Your task to perform on an android device: install app "Skype" Image 0: 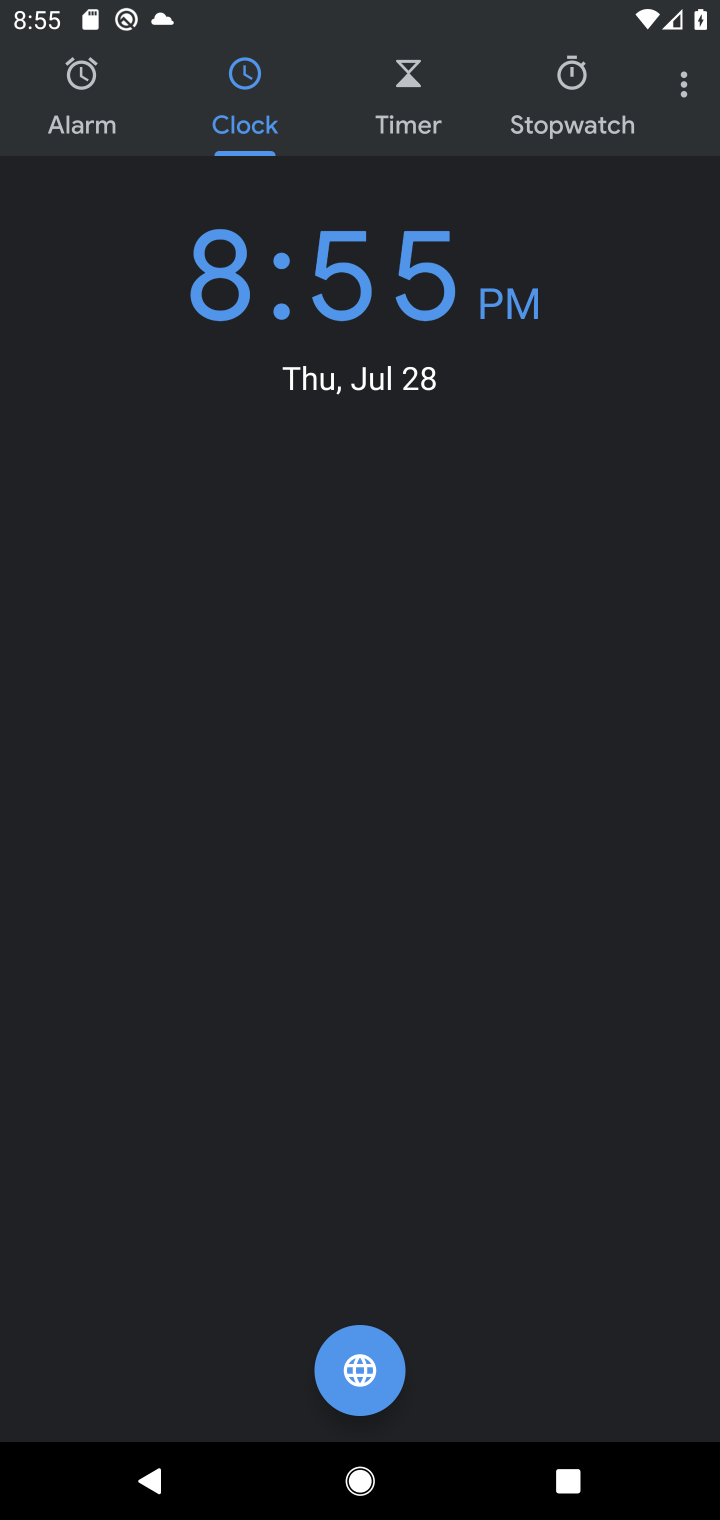
Step 0: press home button
Your task to perform on an android device: install app "Skype" Image 1: 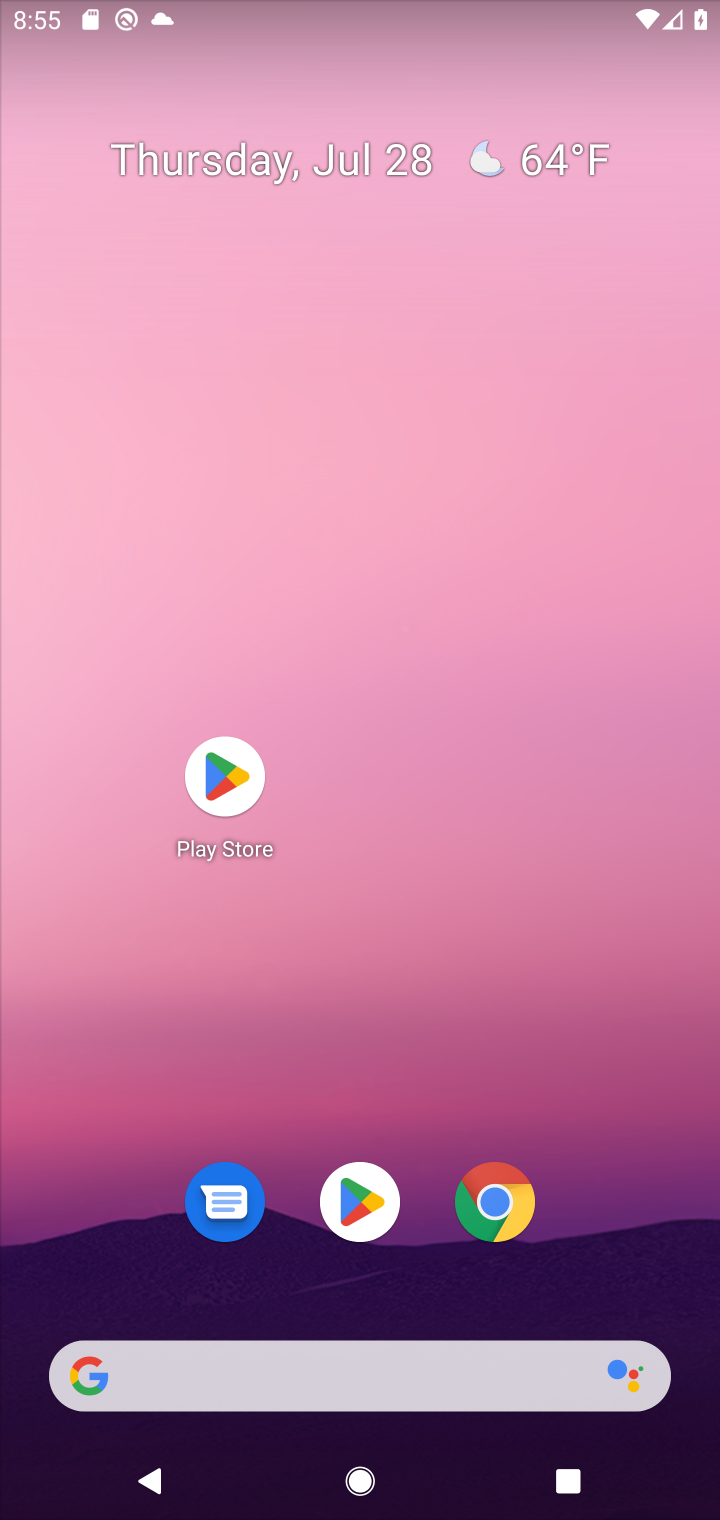
Step 1: click (358, 1189)
Your task to perform on an android device: install app "Skype" Image 2: 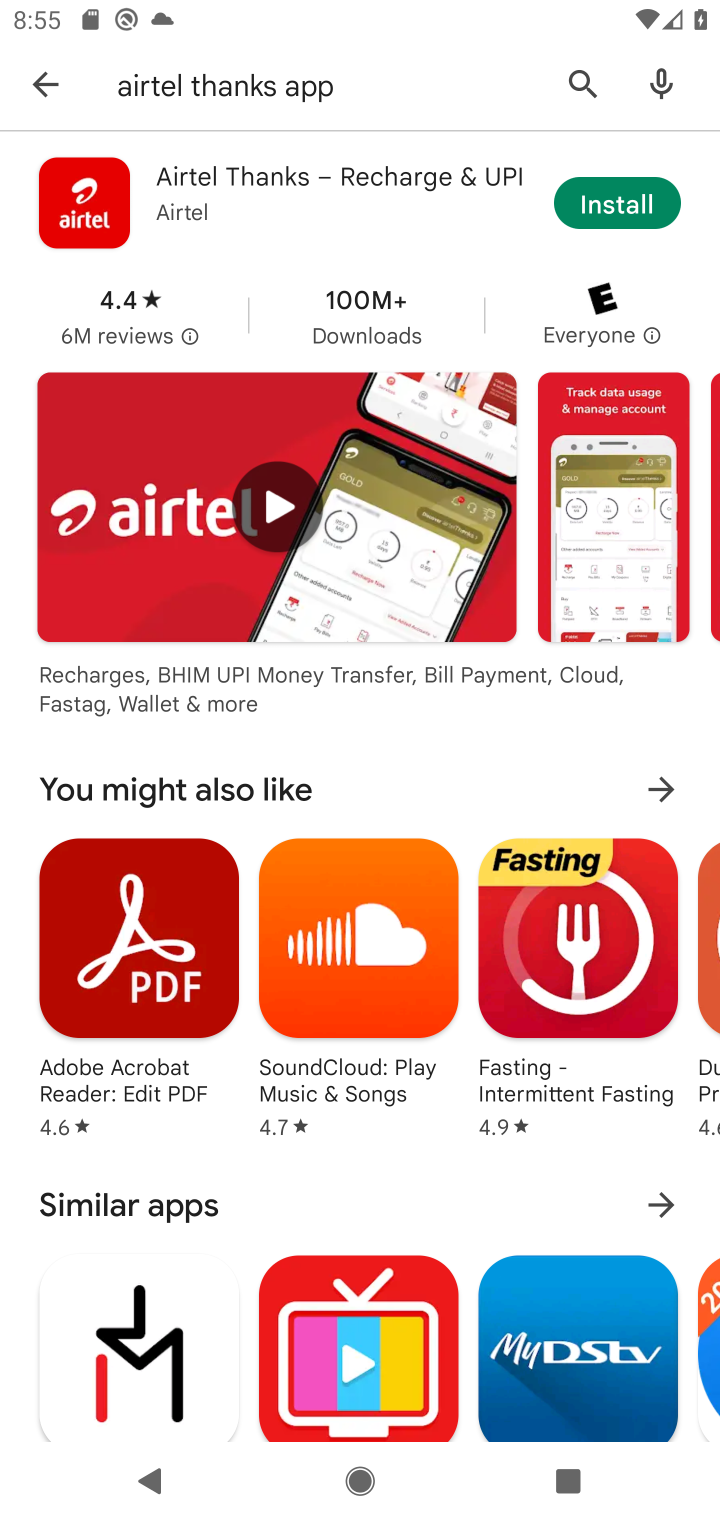
Step 2: click (624, 71)
Your task to perform on an android device: install app "Skype" Image 3: 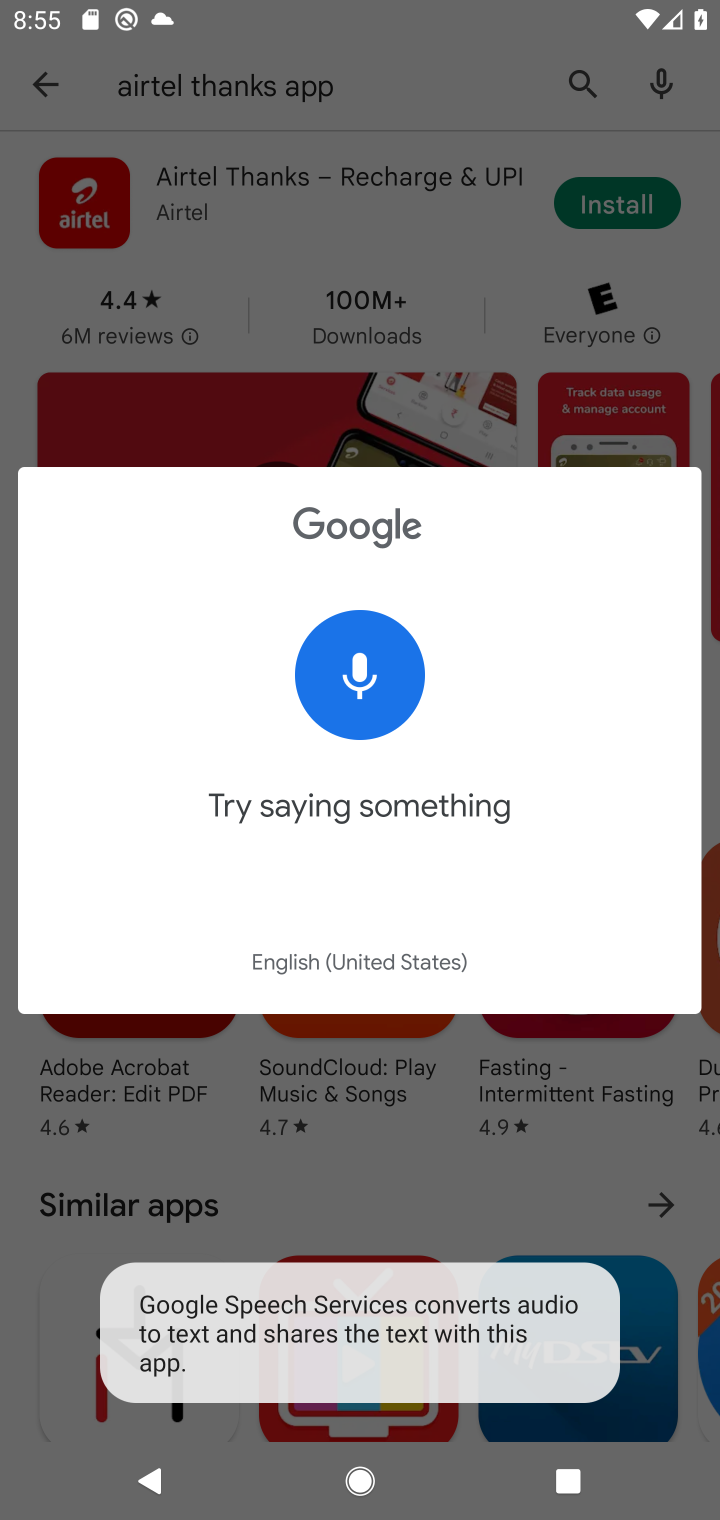
Step 3: click (561, 84)
Your task to perform on an android device: install app "Skype" Image 4: 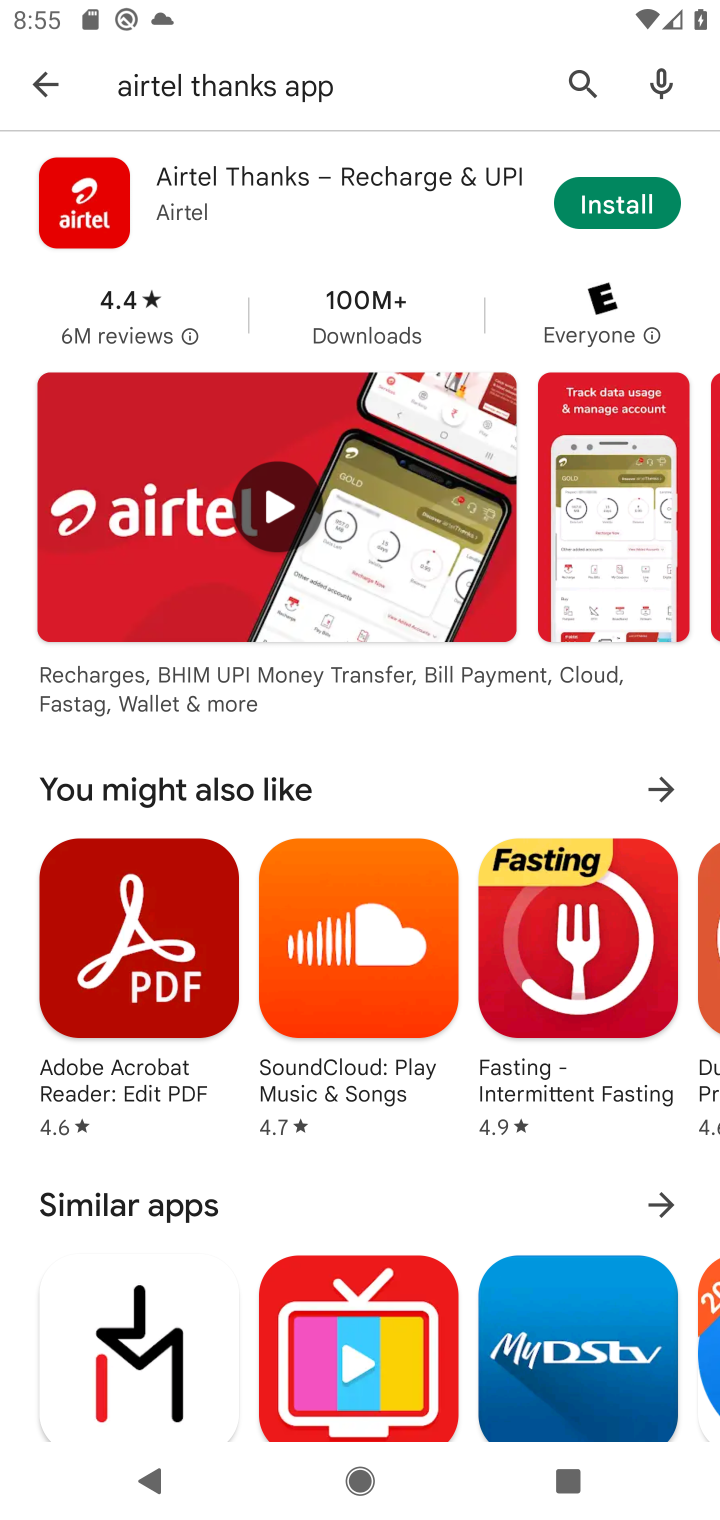
Step 4: click (578, 90)
Your task to perform on an android device: install app "Skype" Image 5: 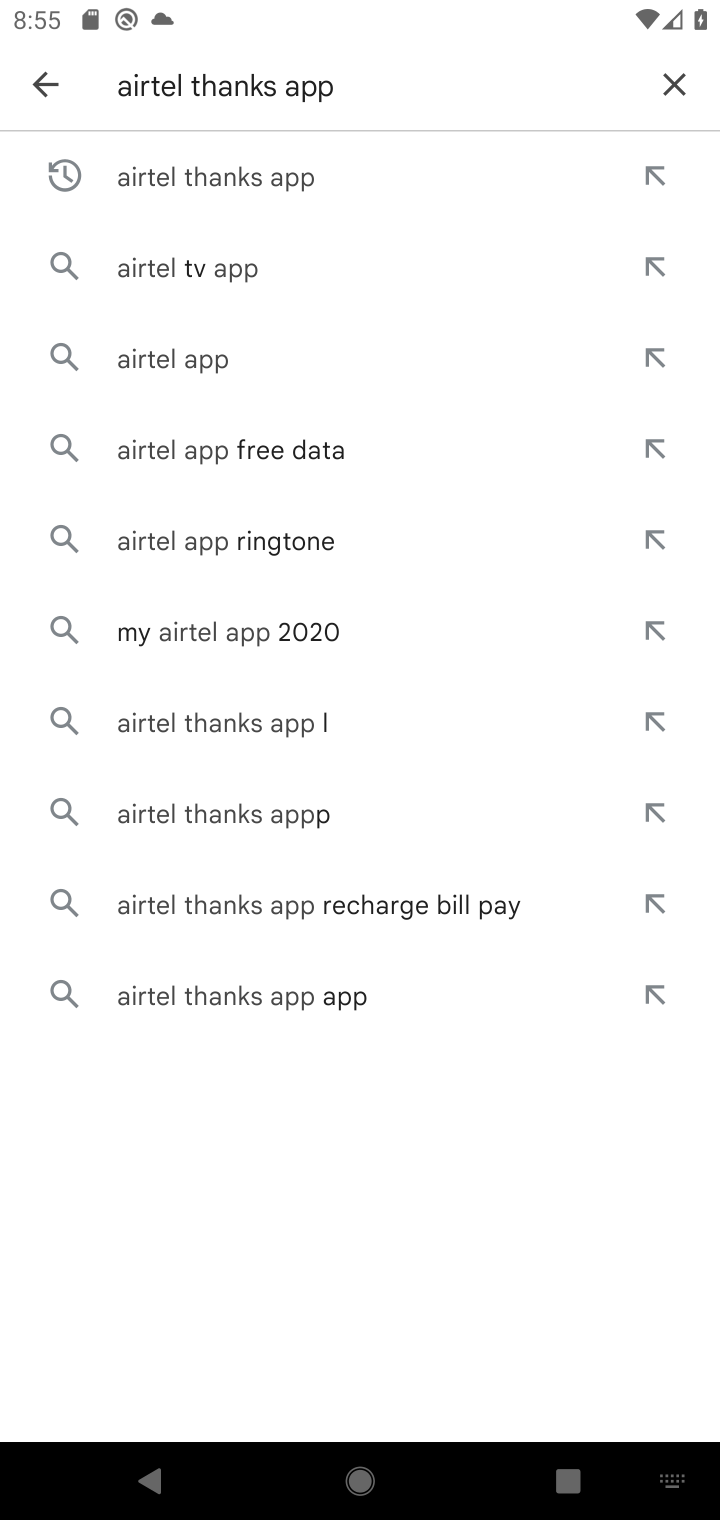
Step 5: click (683, 67)
Your task to perform on an android device: install app "Skype" Image 6: 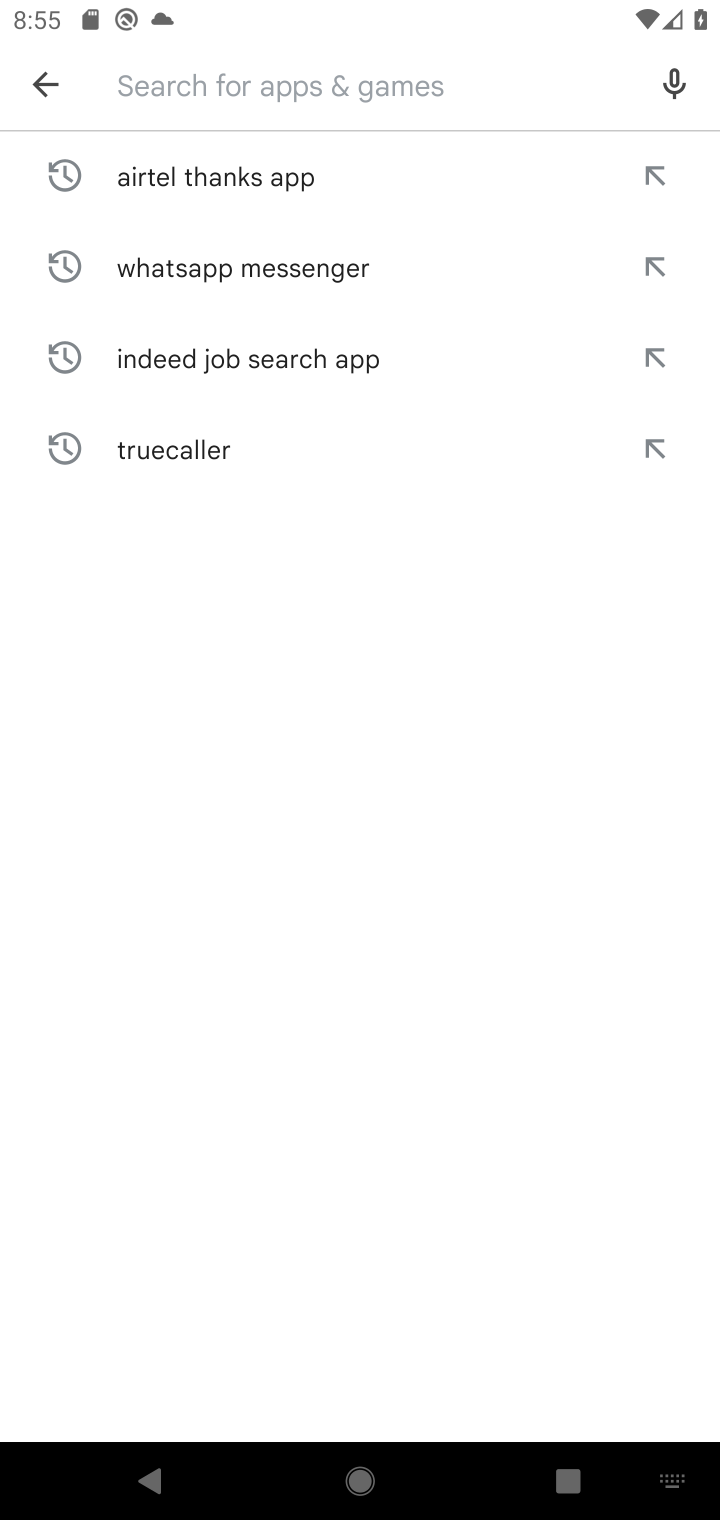
Step 6: click (359, 88)
Your task to perform on an android device: install app "Skype" Image 7: 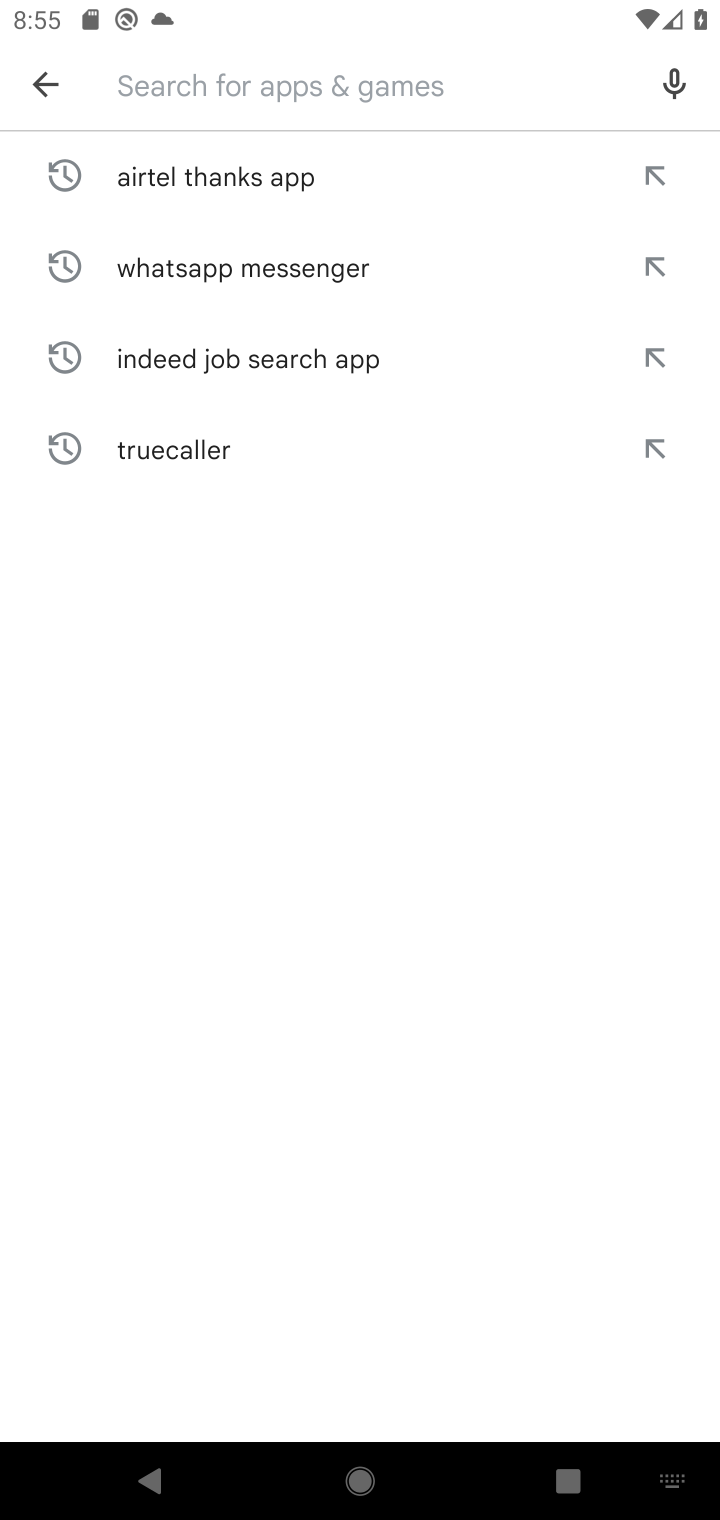
Step 7: type "skype"
Your task to perform on an android device: install app "Skype" Image 8: 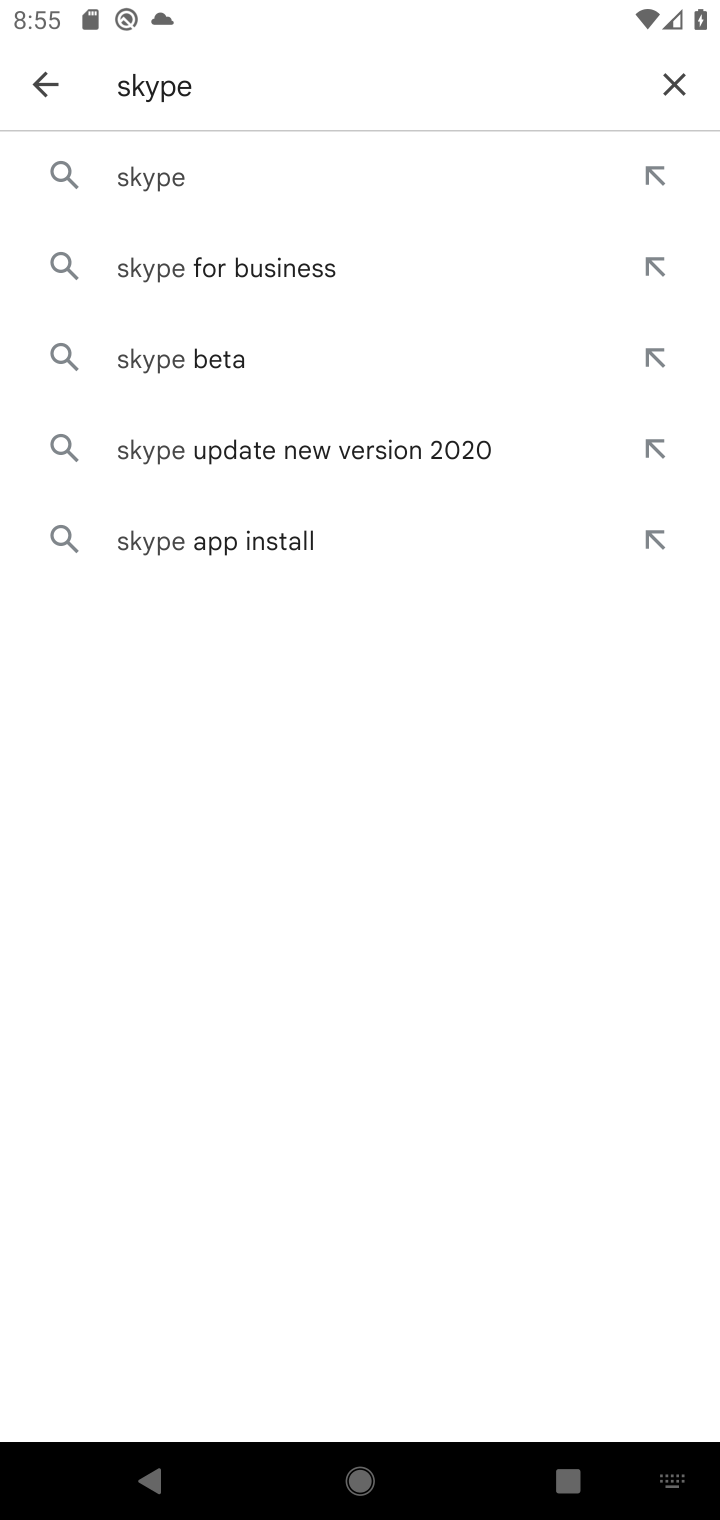
Step 8: click (160, 173)
Your task to perform on an android device: install app "Skype" Image 9: 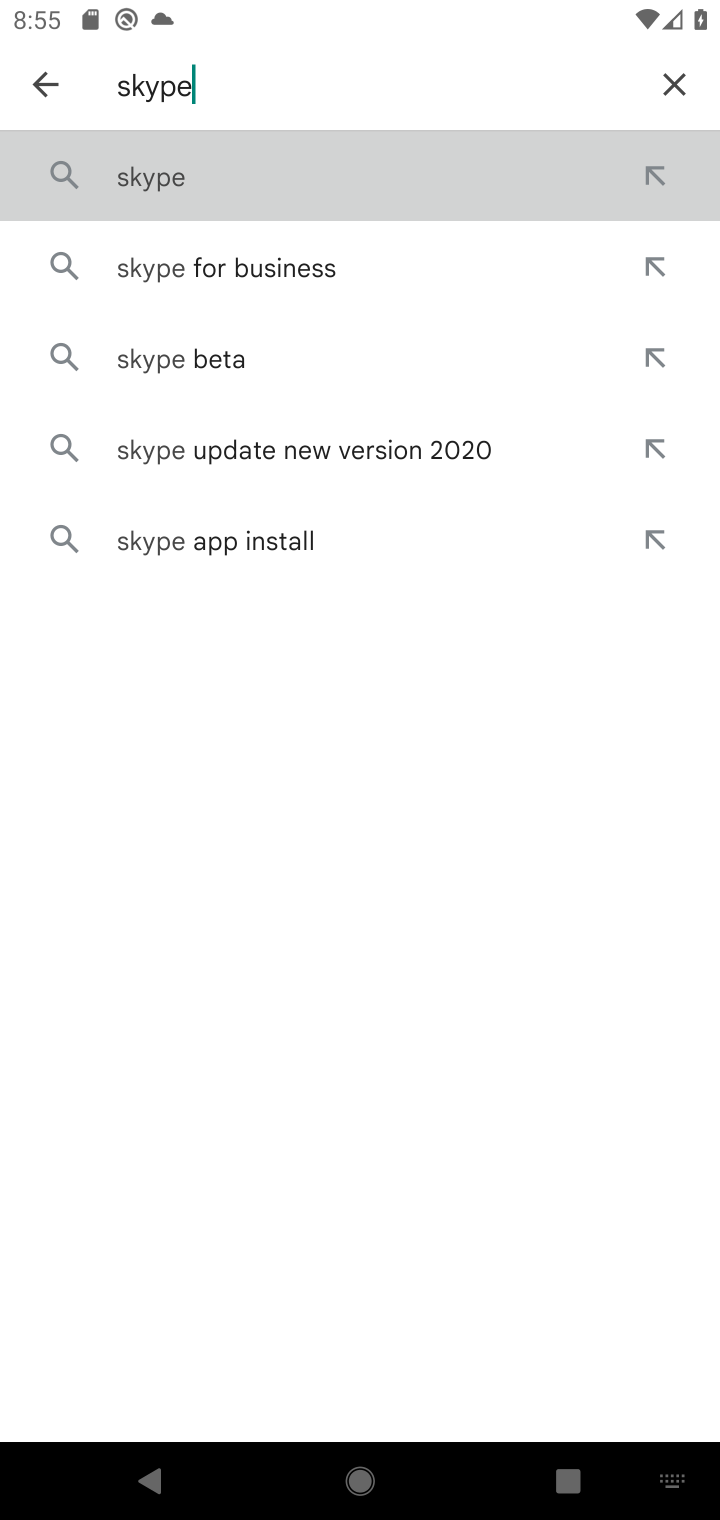
Step 9: click (160, 173)
Your task to perform on an android device: install app "Skype" Image 10: 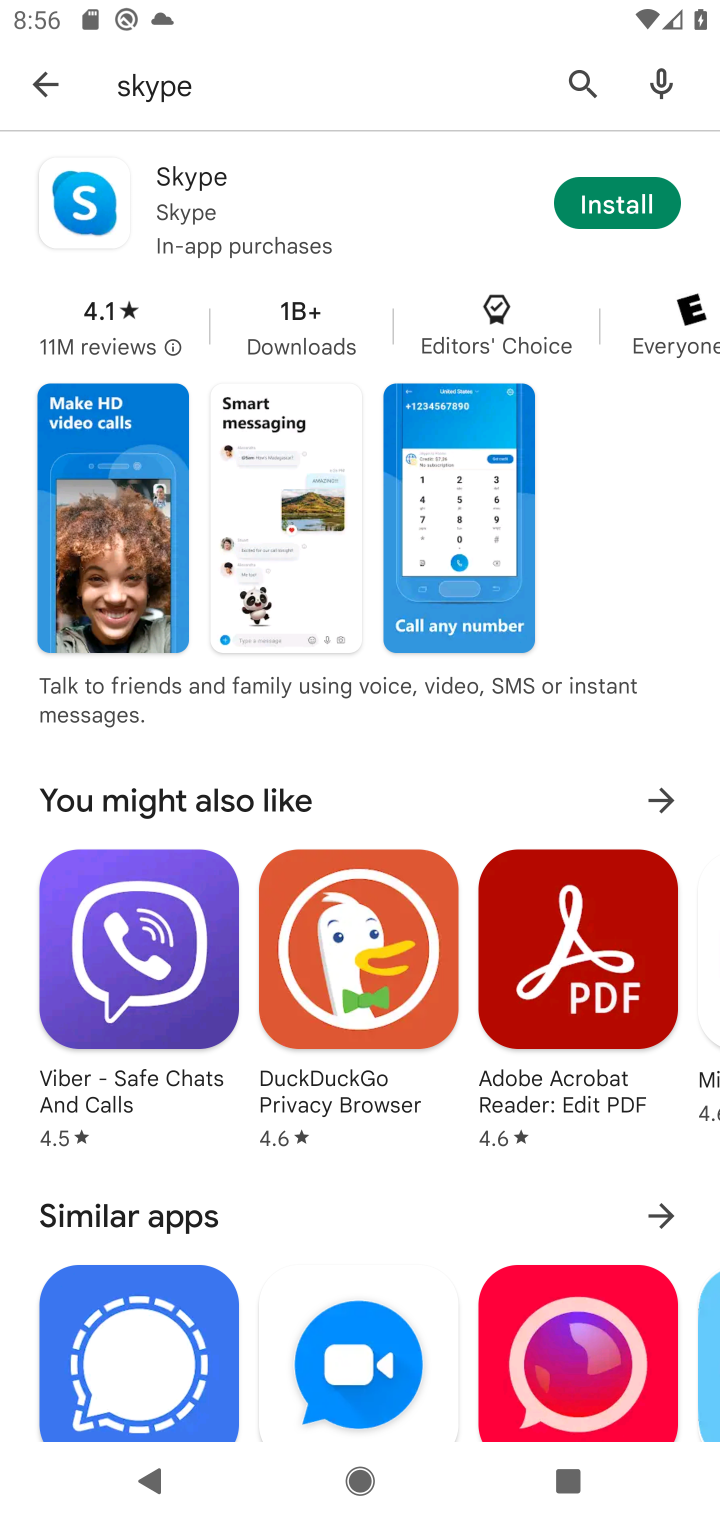
Step 10: click (592, 182)
Your task to perform on an android device: install app "Skype" Image 11: 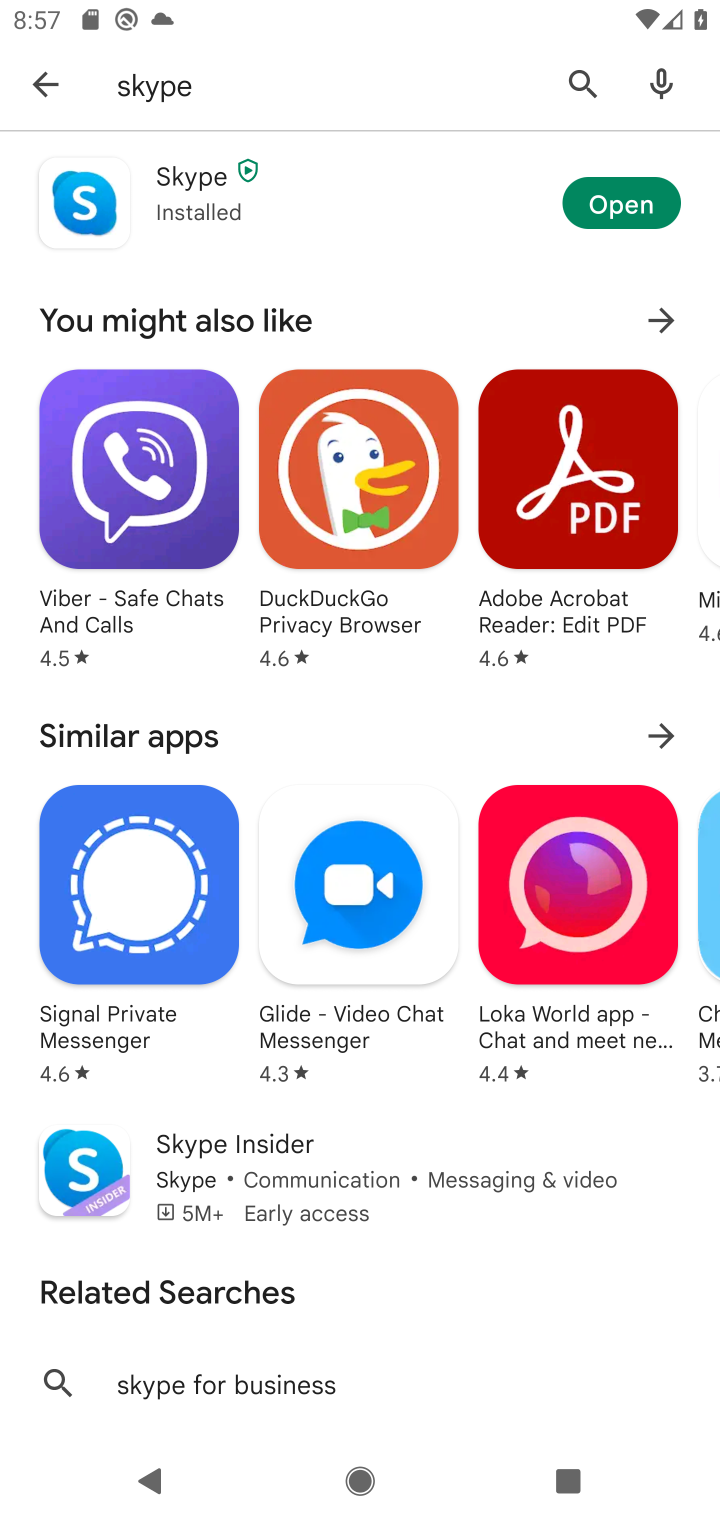
Step 11: click (634, 218)
Your task to perform on an android device: install app "Skype" Image 12: 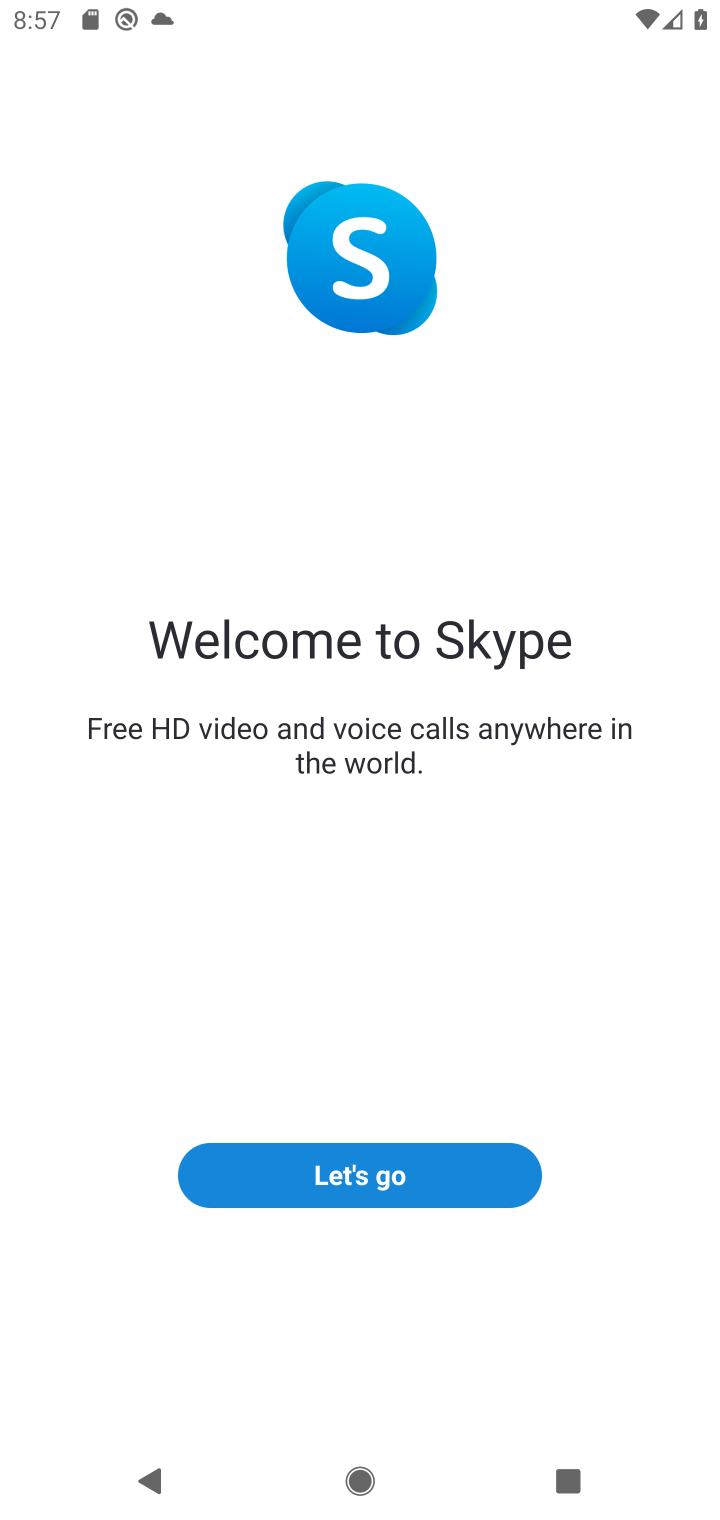
Step 12: task complete